Your task to perform on an android device: set an alarm Image 0: 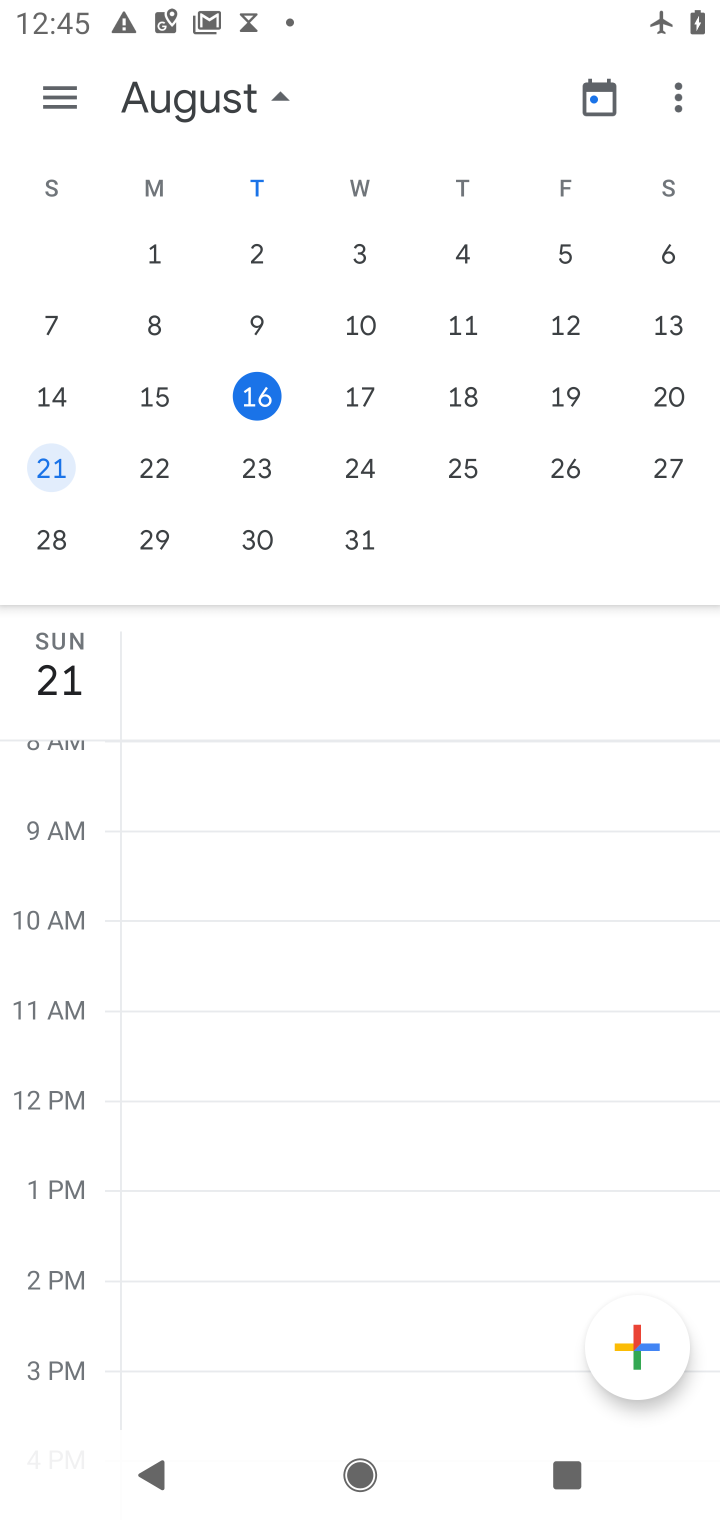
Step 0: press home button
Your task to perform on an android device: set an alarm Image 1: 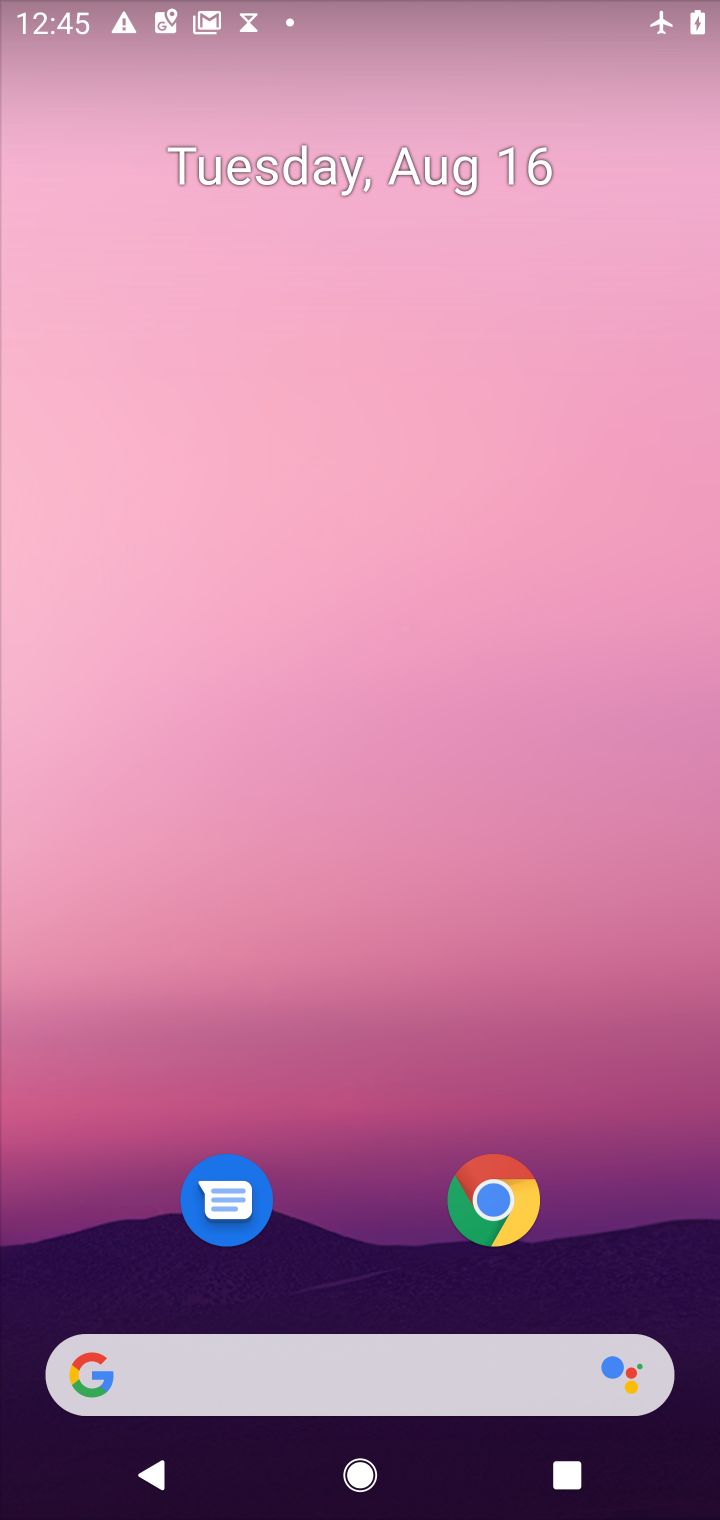
Step 1: drag from (383, 1000) to (367, 376)
Your task to perform on an android device: set an alarm Image 2: 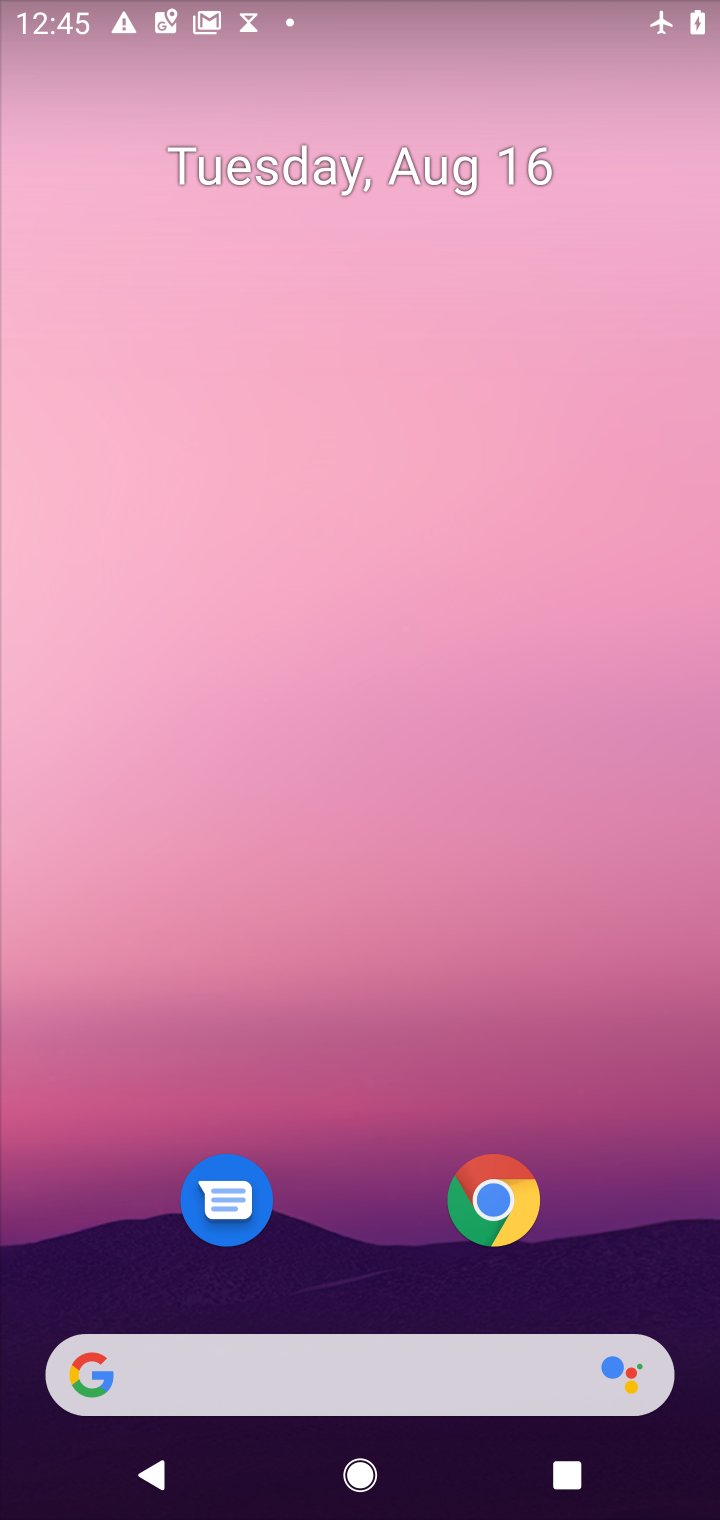
Step 2: drag from (379, 218) to (379, 73)
Your task to perform on an android device: set an alarm Image 3: 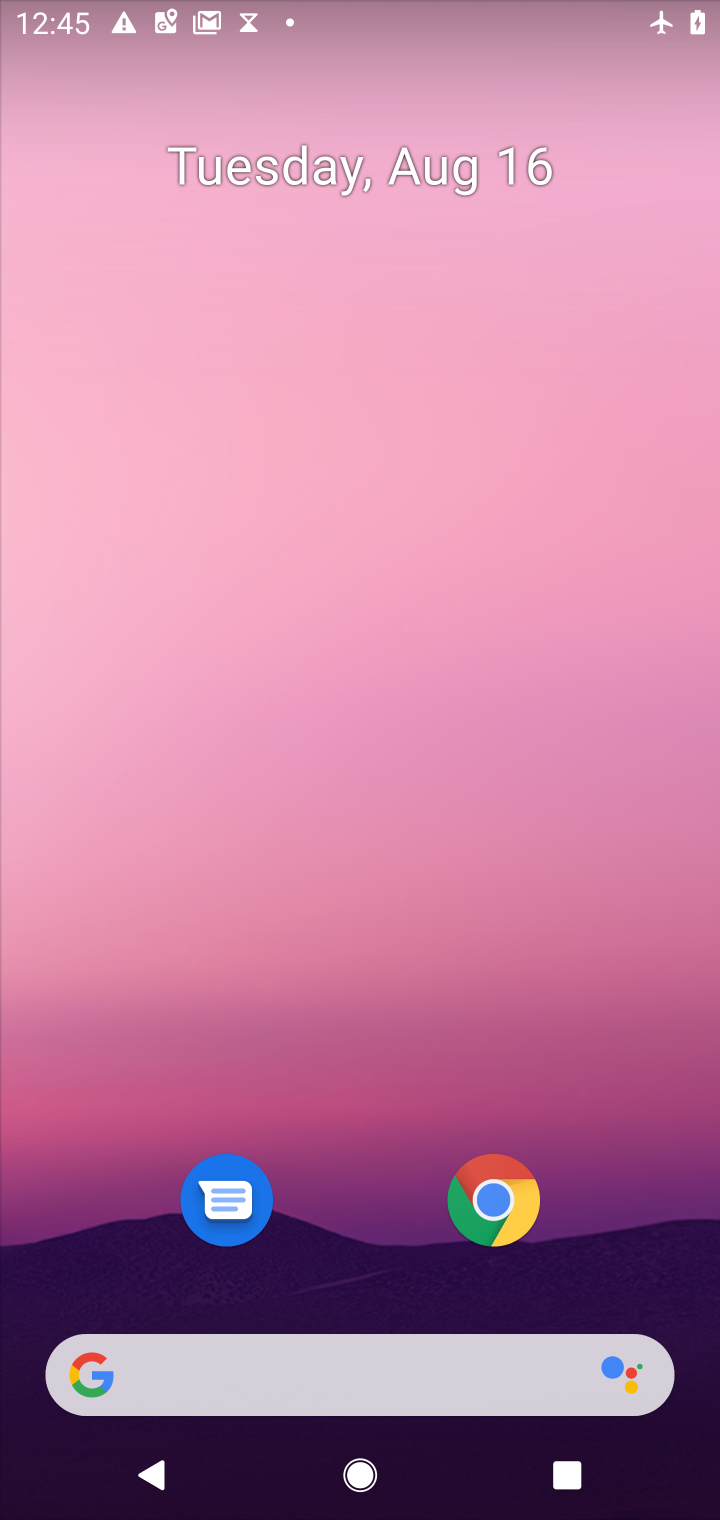
Step 3: drag from (318, 1025) to (318, 62)
Your task to perform on an android device: set an alarm Image 4: 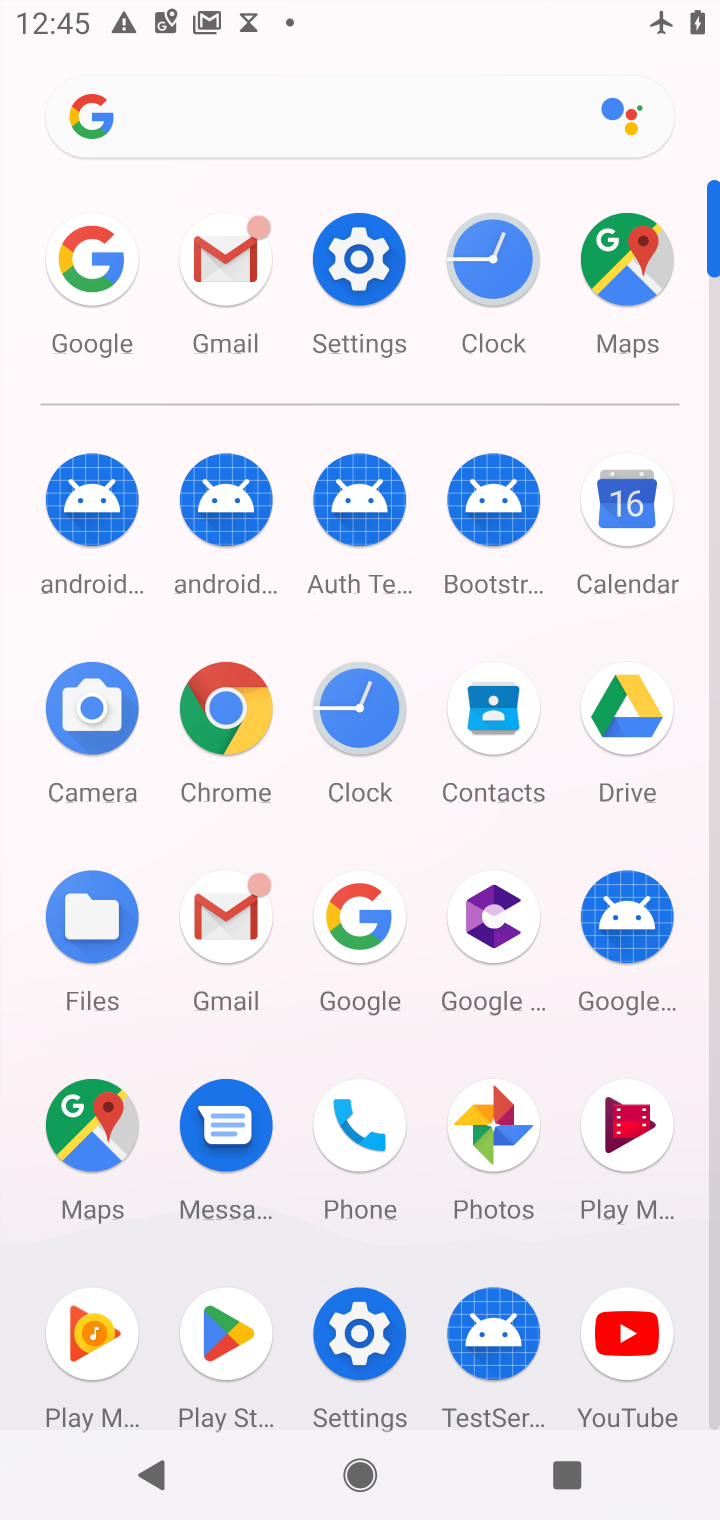
Step 4: click (346, 745)
Your task to perform on an android device: set an alarm Image 5: 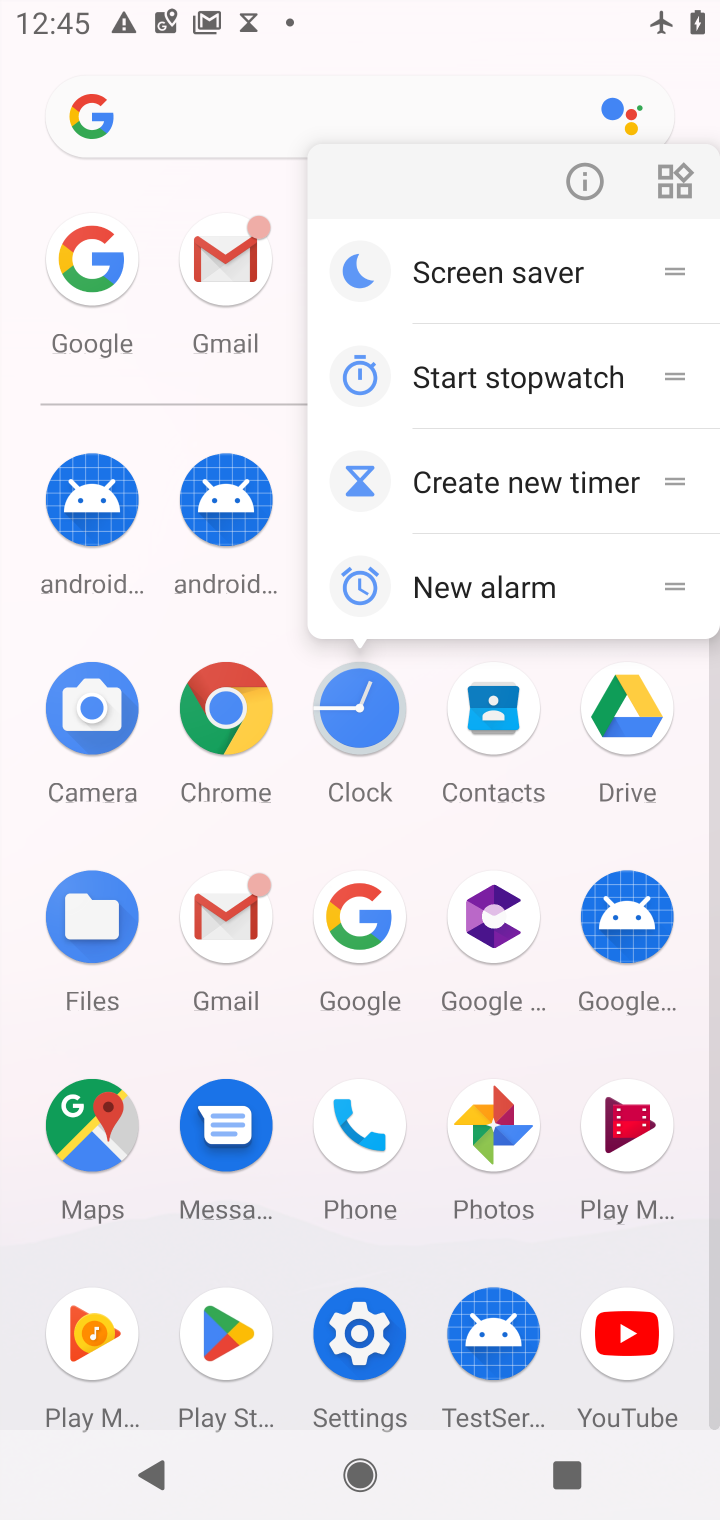
Step 5: click (346, 745)
Your task to perform on an android device: set an alarm Image 6: 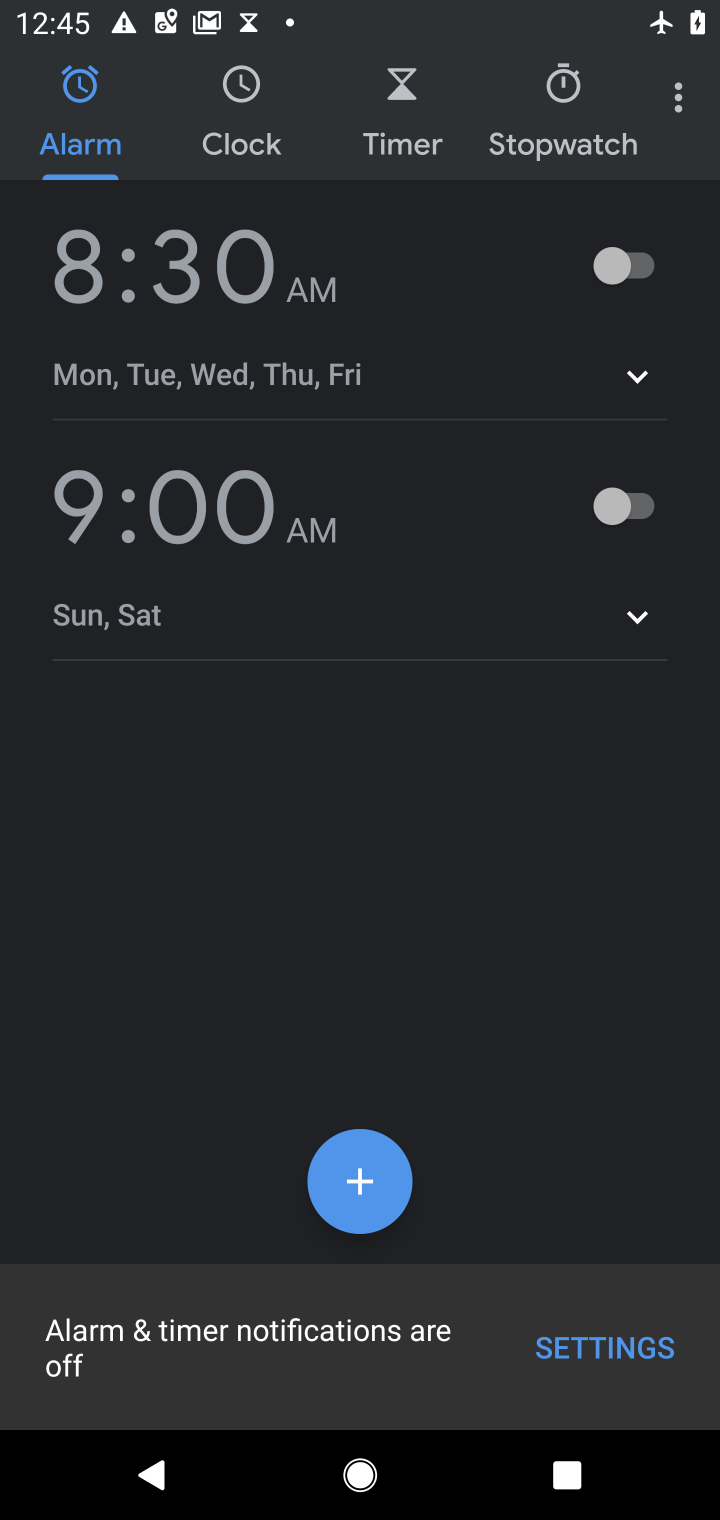
Step 6: click (640, 244)
Your task to perform on an android device: set an alarm Image 7: 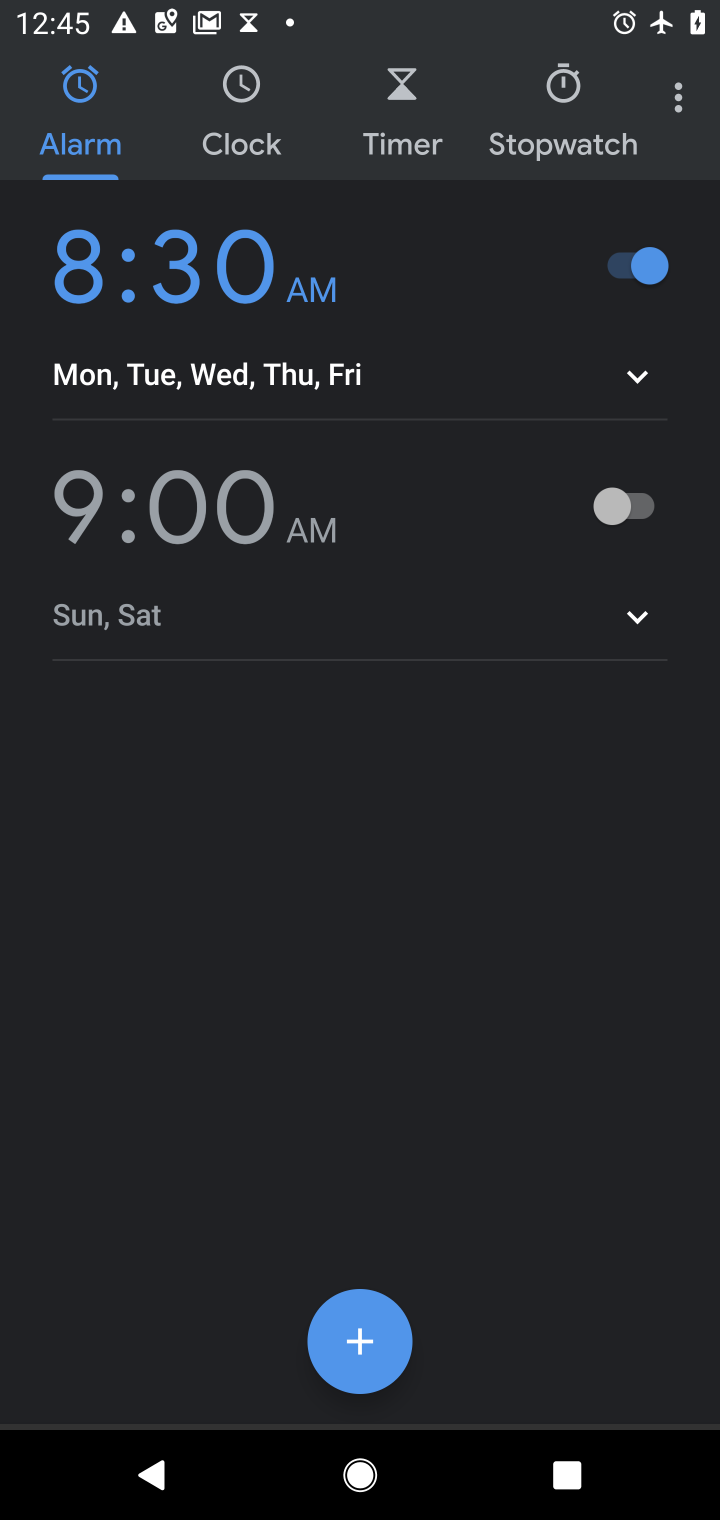
Step 7: task complete